Your task to perform on an android device: Open Google Chrome and click the shortcut for Amazon.com Image 0: 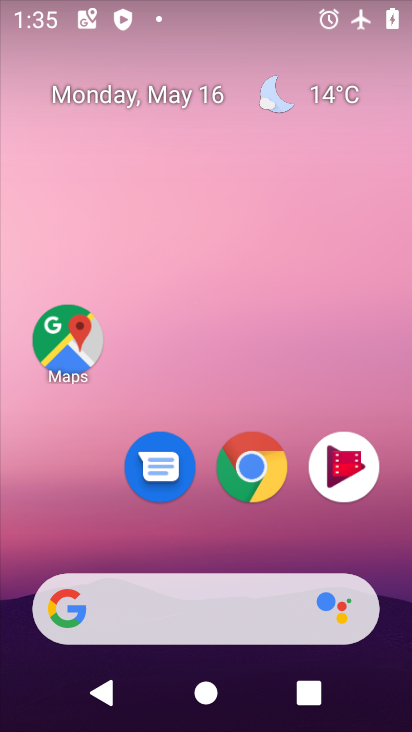
Step 0: drag from (259, 468) to (291, 156)
Your task to perform on an android device: Open Google Chrome and click the shortcut for Amazon.com Image 1: 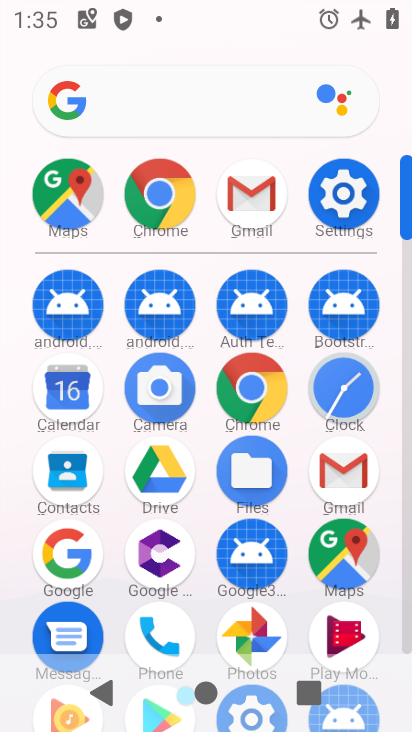
Step 1: click (157, 195)
Your task to perform on an android device: Open Google Chrome and click the shortcut for Amazon.com Image 2: 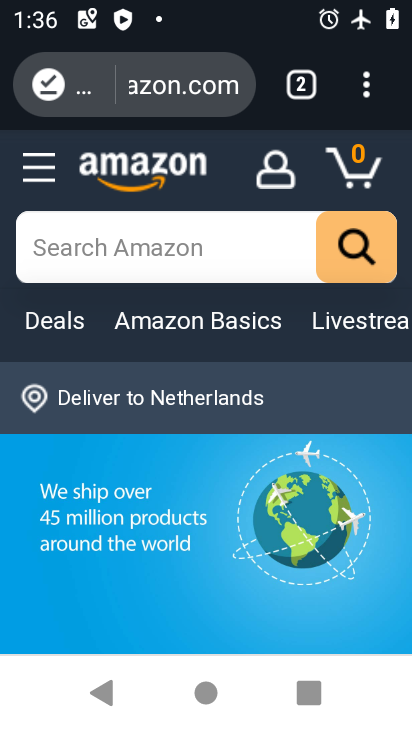
Step 2: task complete